Your task to perform on an android device: Open the map Image 0: 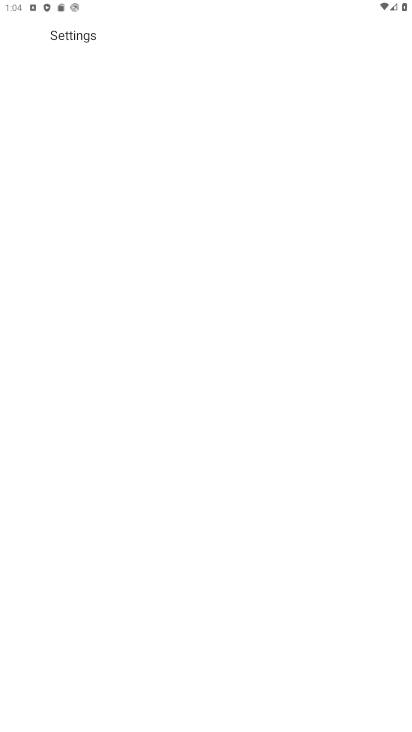
Step 0: click (232, 170)
Your task to perform on an android device: Open the map Image 1: 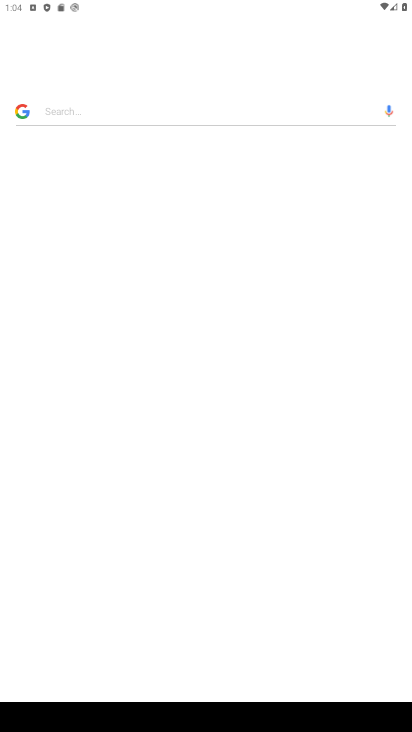
Step 1: press home button
Your task to perform on an android device: Open the map Image 2: 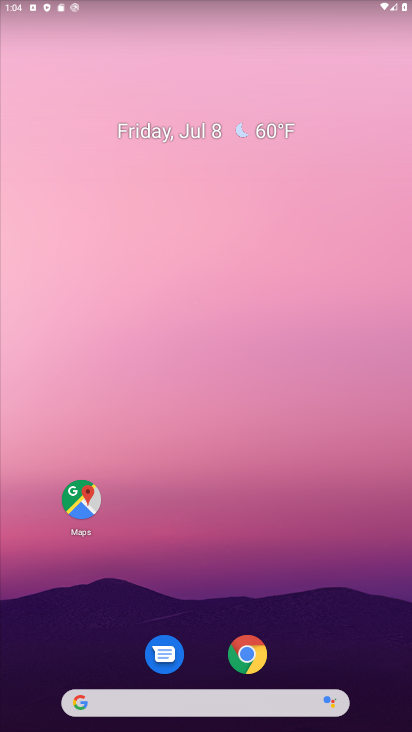
Step 2: click (86, 513)
Your task to perform on an android device: Open the map Image 3: 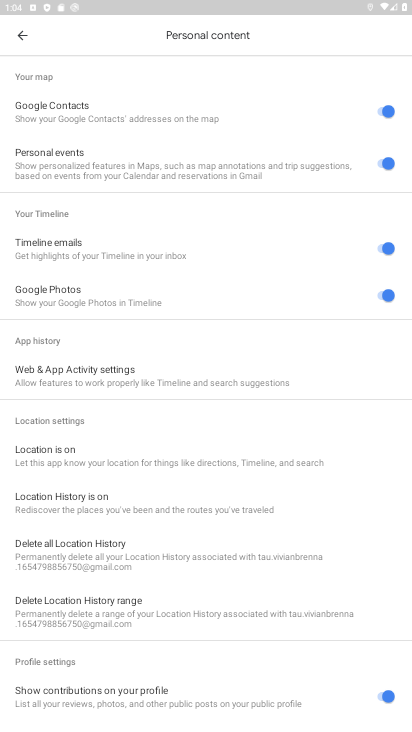
Step 3: click (24, 27)
Your task to perform on an android device: Open the map Image 4: 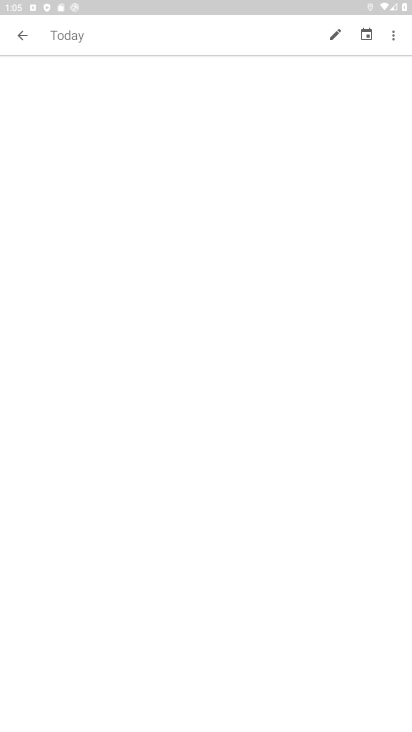
Step 4: click (24, 27)
Your task to perform on an android device: Open the map Image 5: 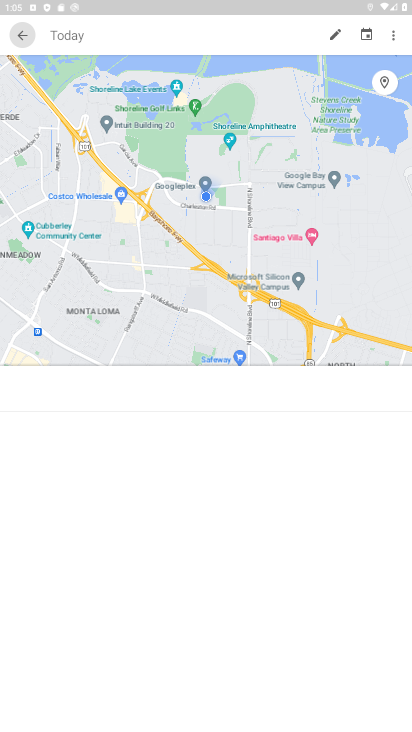
Step 5: click (23, 36)
Your task to perform on an android device: Open the map Image 6: 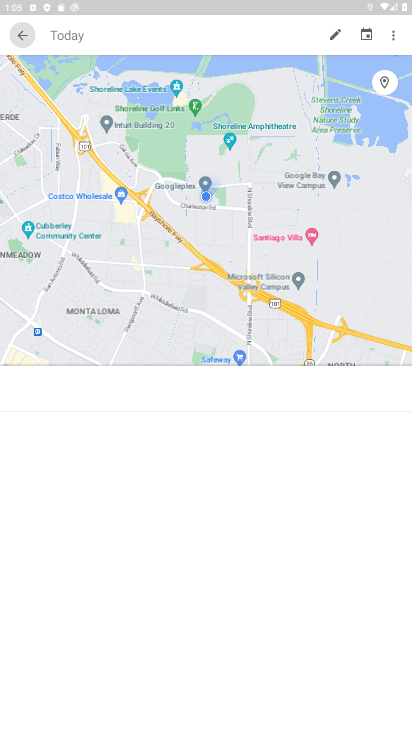
Step 6: task complete